Your task to perform on an android device: set an alarm Image 0: 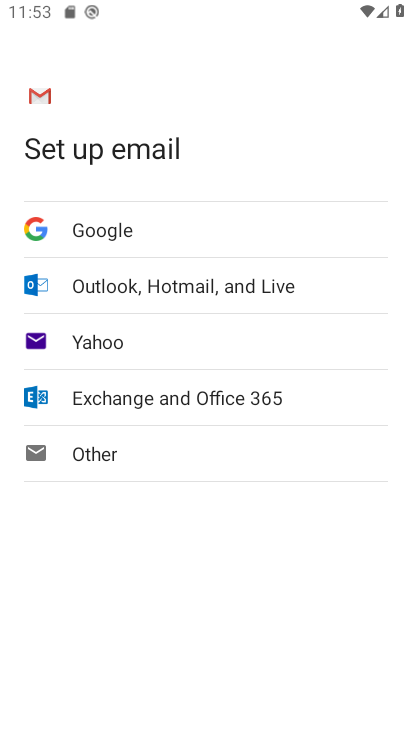
Step 0: press back button
Your task to perform on an android device: set an alarm Image 1: 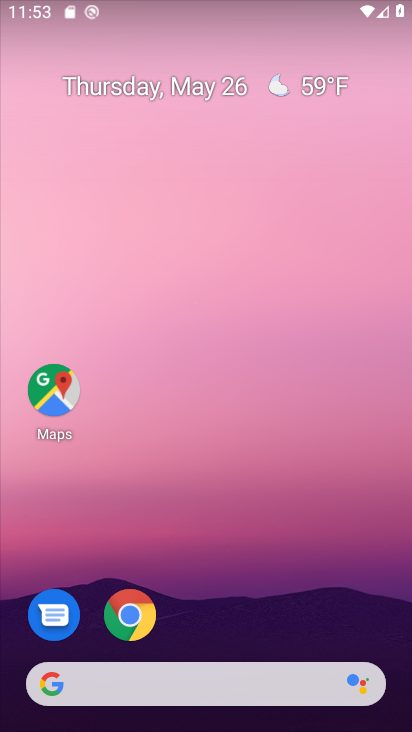
Step 1: drag from (264, 644) to (219, 8)
Your task to perform on an android device: set an alarm Image 2: 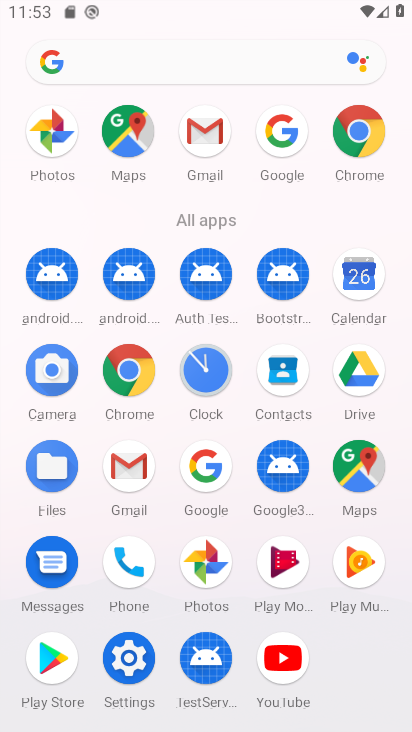
Step 2: click (201, 381)
Your task to perform on an android device: set an alarm Image 3: 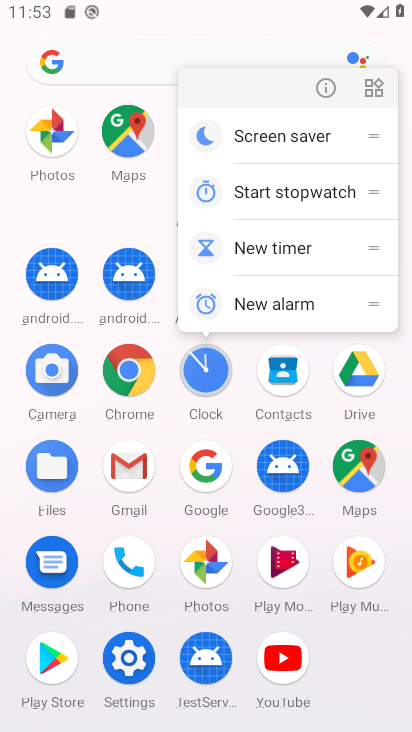
Step 3: click (202, 380)
Your task to perform on an android device: set an alarm Image 4: 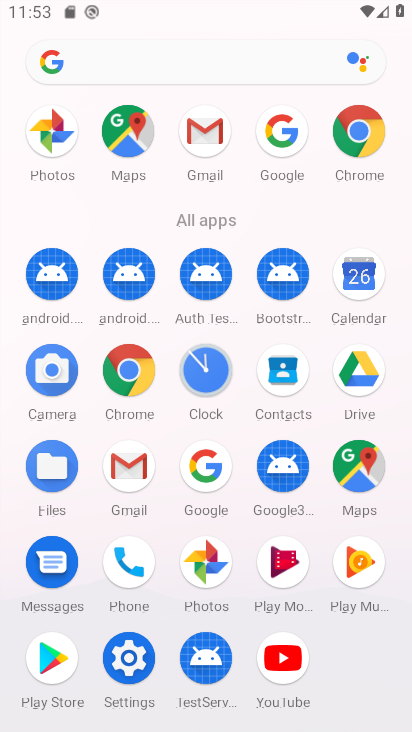
Step 4: click (202, 380)
Your task to perform on an android device: set an alarm Image 5: 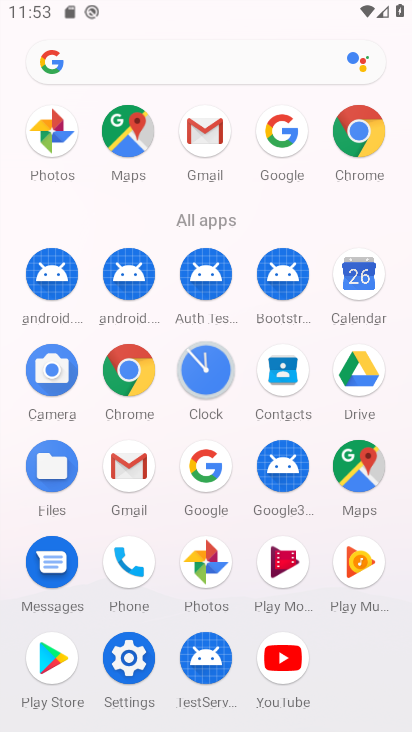
Step 5: click (202, 380)
Your task to perform on an android device: set an alarm Image 6: 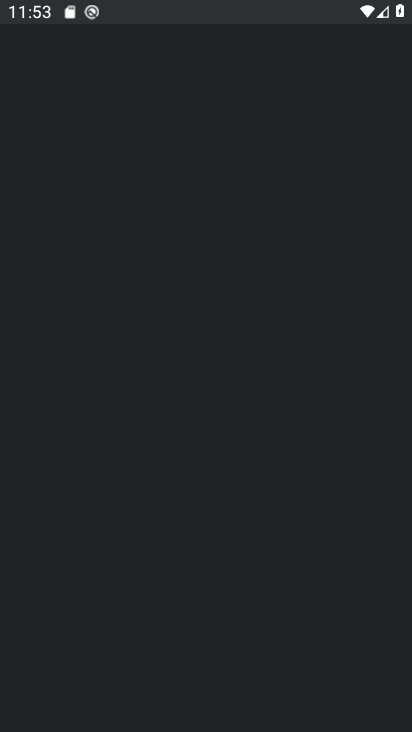
Step 6: click (202, 380)
Your task to perform on an android device: set an alarm Image 7: 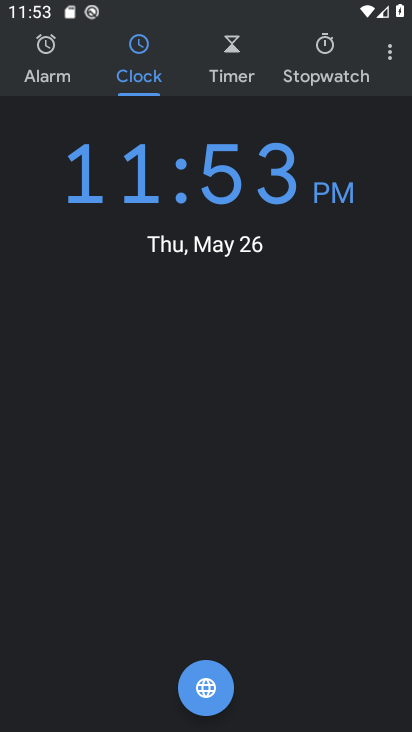
Step 7: click (51, 72)
Your task to perform on an android device: set an alarm Image 8: 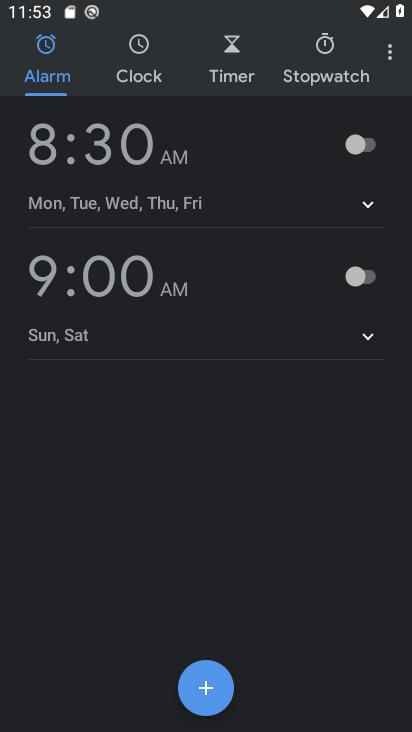
Step 8: click (354, 140)
Your task to perform on an android device: set an alarm Image 9: 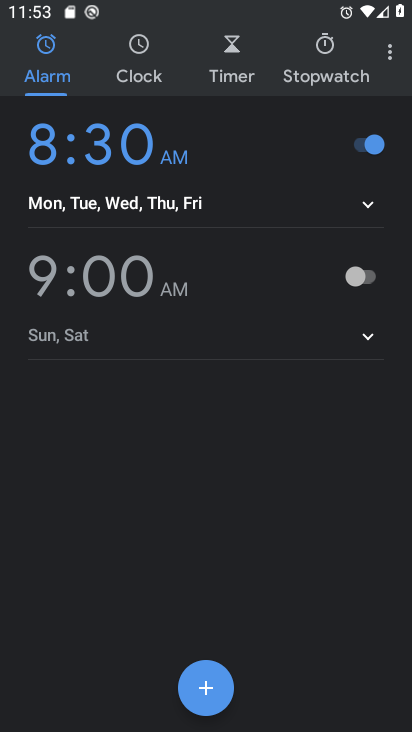
Step 9: task complete